Your task to perform on an android device: Check the weather Image 0: 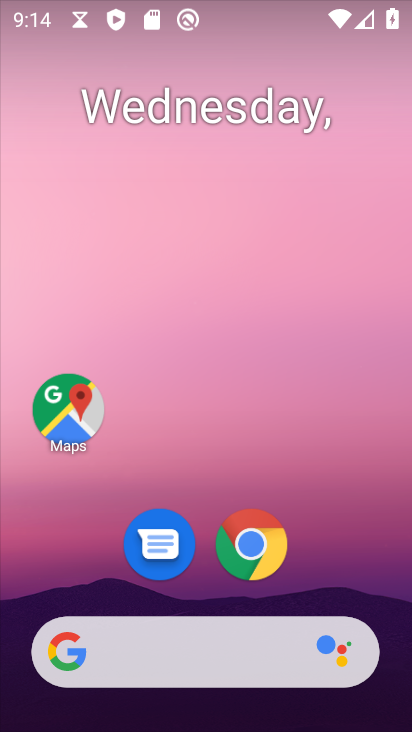
Step 0: drag from (208, 602) to (377, 90)
Your task to perform on an android device: Check the weather Image 1: 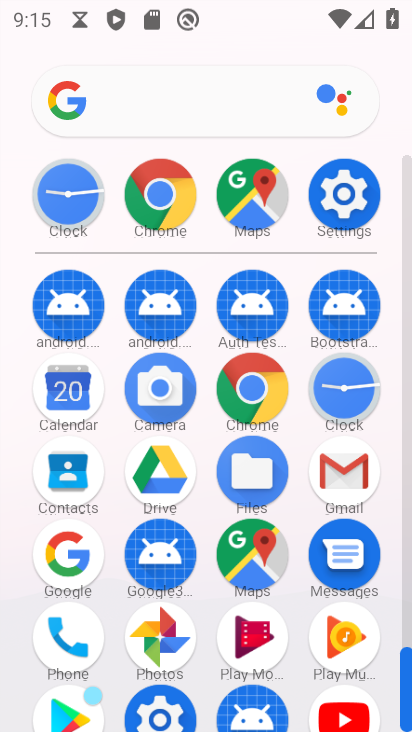
Step 1: click (58, 548)
Your task to perform on an android device: Check the weather Image 2: 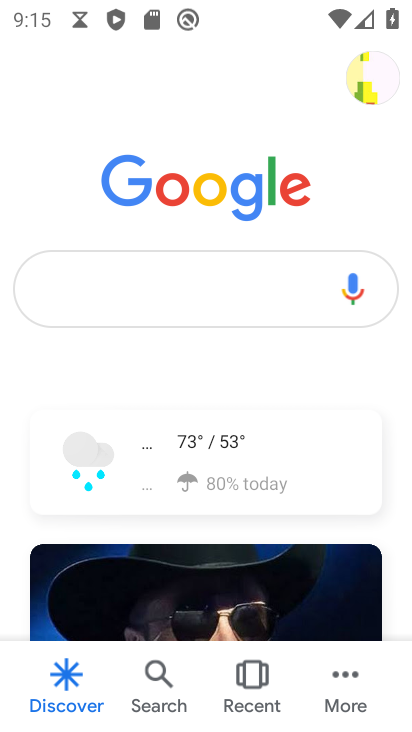
Step 2: click (211, 440)
Your task to perform on an android device: Check the weather Image 3: 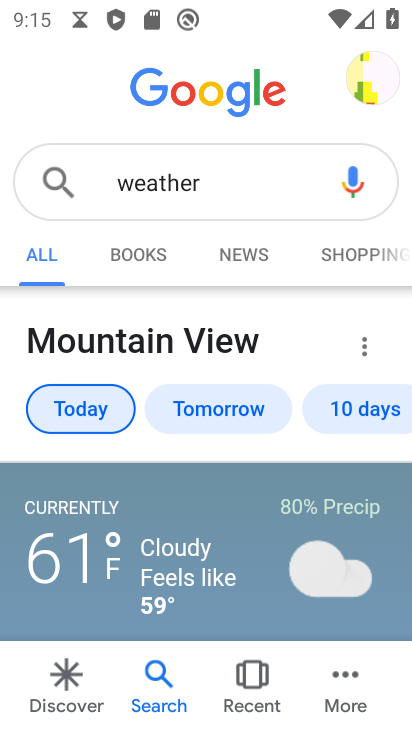
Step 3: task complete